Your task to perform on an android device: make emails show in primary in the gmail app Image 0: 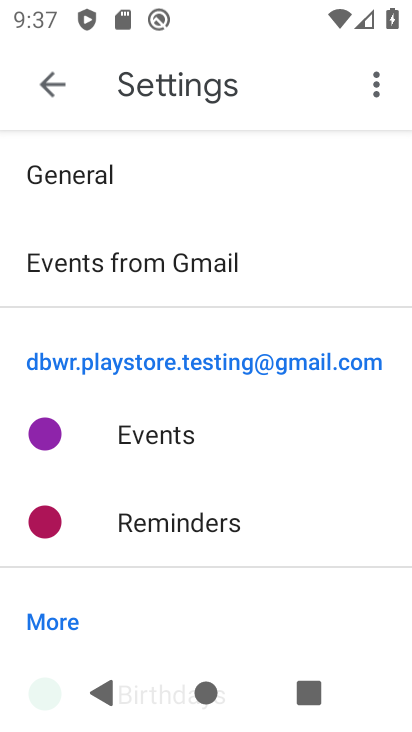
Step 0: press home button
Your task to perform on an android device: make emails show in primary in the gmail app Image 1: 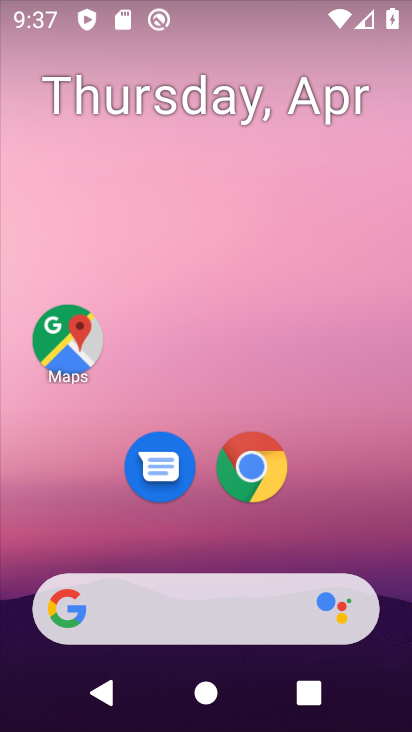
Step 1: drag from (378, 539) to (335, 147)
Your task to perform on an android device: make emails show in primary in the gmail app Image 2: 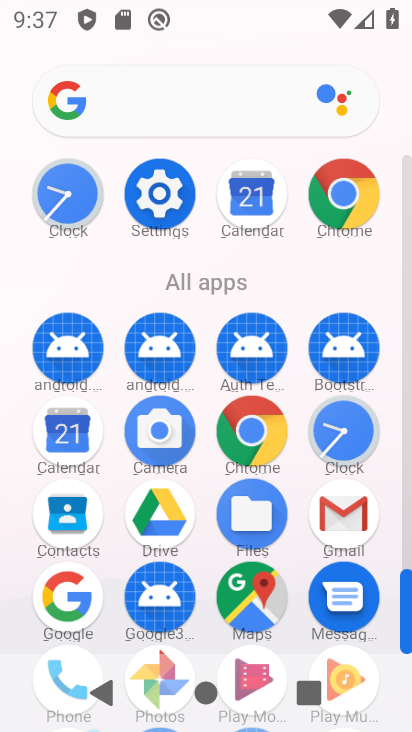
Step 2: click (355, 517)
Your task to perform on an android device: make emails show in primary in the gmail app Image 3: 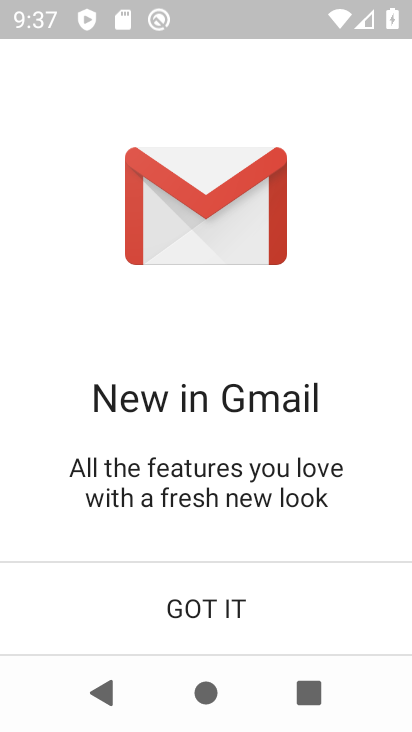
Step 3: click (212, 615)
Your task to perform on an android device: make emails show in primary in the gmail app Image 4: 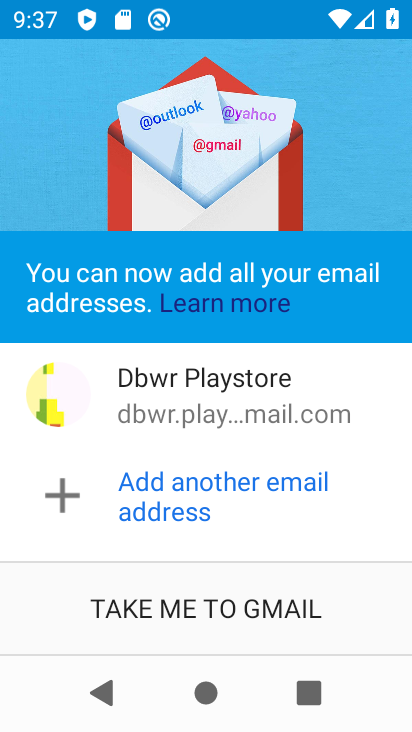
Step 4: click (212, 615)
Your task to perform on an android device: make emails show in primary in the gmail app Image 5: 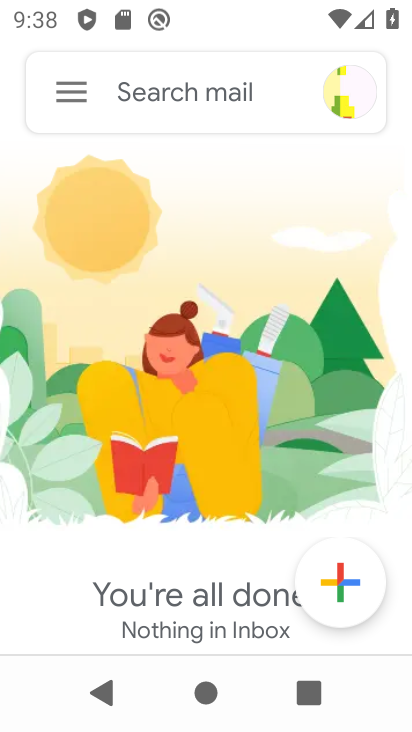
Step 5: click (86, 120)
Your task to perform on an android device: make emails show in primary in the gmail app Image 6: 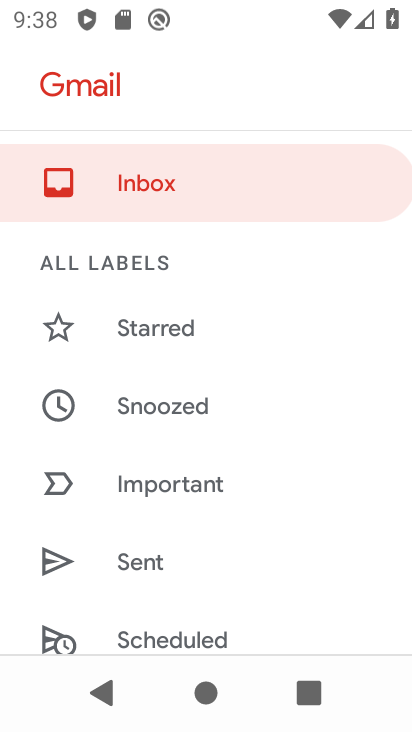
Step 6: drag from (248, 599) to (275, 190)
Your task to perform on an android device: make emails show in primary in the gmail app Image 7: 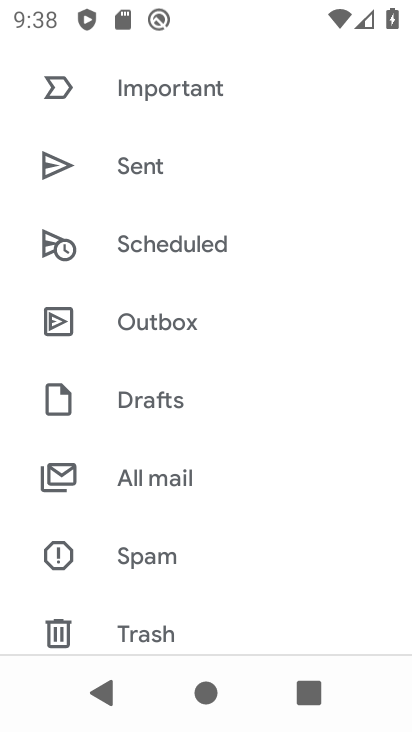
Step 7: drag from (304, 600) to (239, 382)
Your task to perform on an android device: make emails show in primary in the gmail app Image 8: 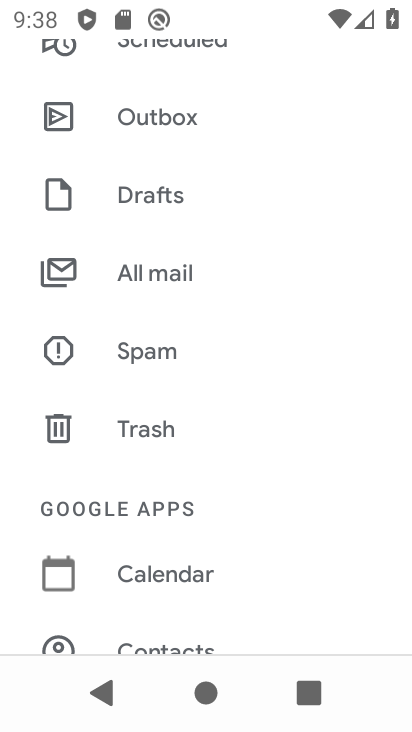
Step 8: drag from (240, 603) to (278, 383)
Your task to perform on an android device: make emails show in primary in the gmail app Image 9: 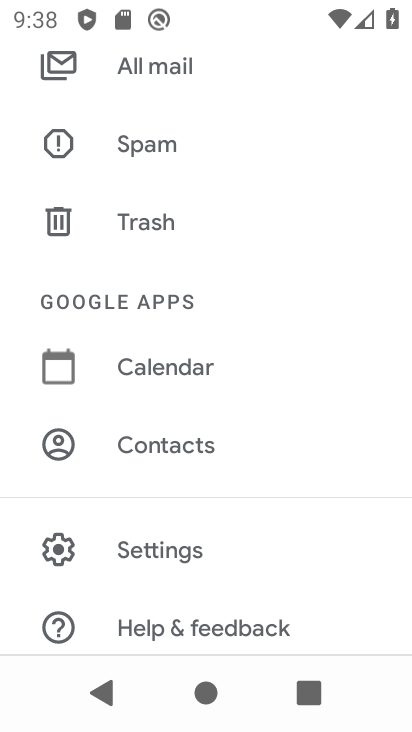
Step 9: click (237, 572)
Your task to perform on an android device: make emails show in primary in the gmail app Image 10: 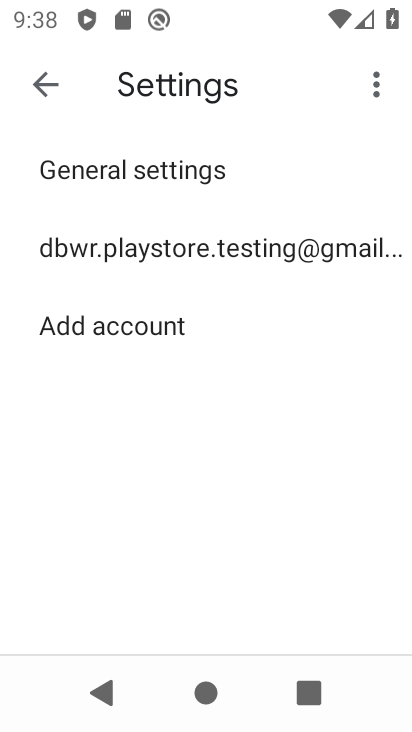
Step 10: click (324, 271)
Your task to perform on an android device: make emails show in primary in the gmail app Image 11: 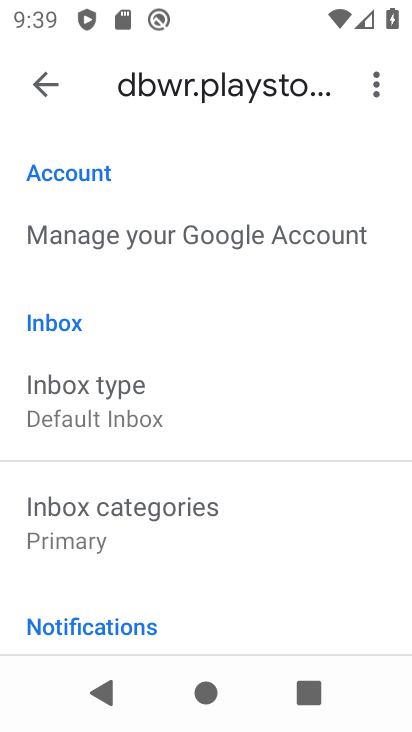
Step 11: task complete